Your task to perform on an android device: uninstall "Facebook Lite" Image 0: 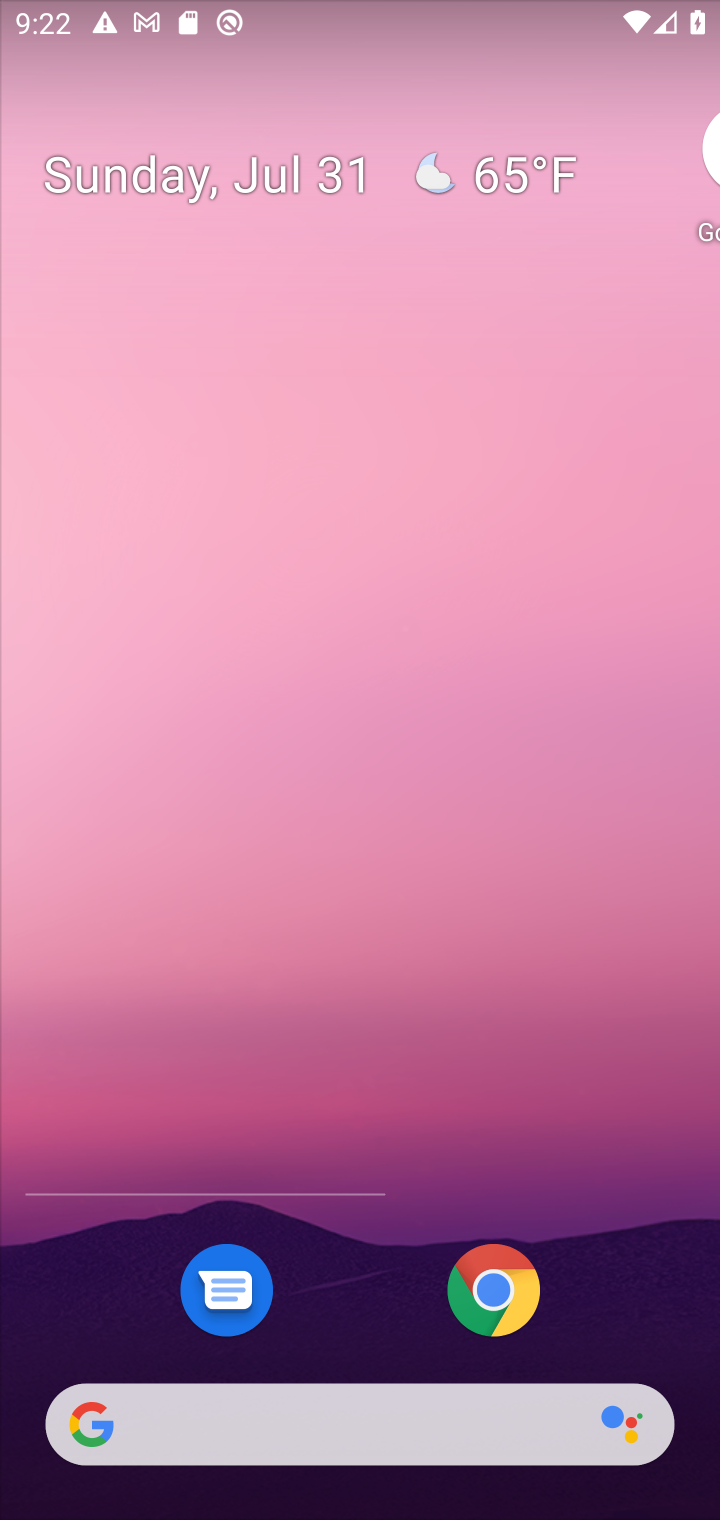
Step 0: press home button
Your task to perform on an android device: uninstall "Facebook Lite" Image 1: 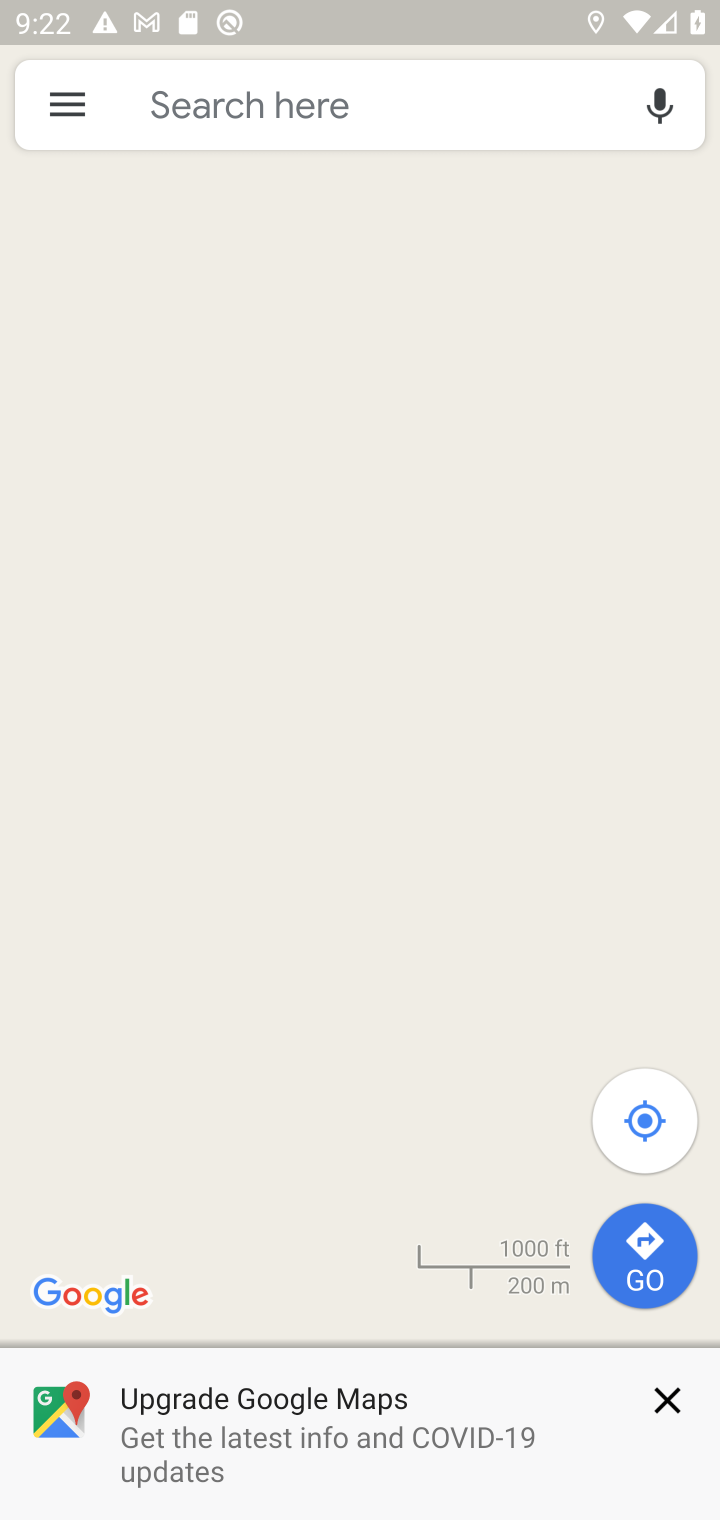
Step 1: click (602, 162)
Your task to perform on an android device: uninstall "Facebook Lite" Image 2: 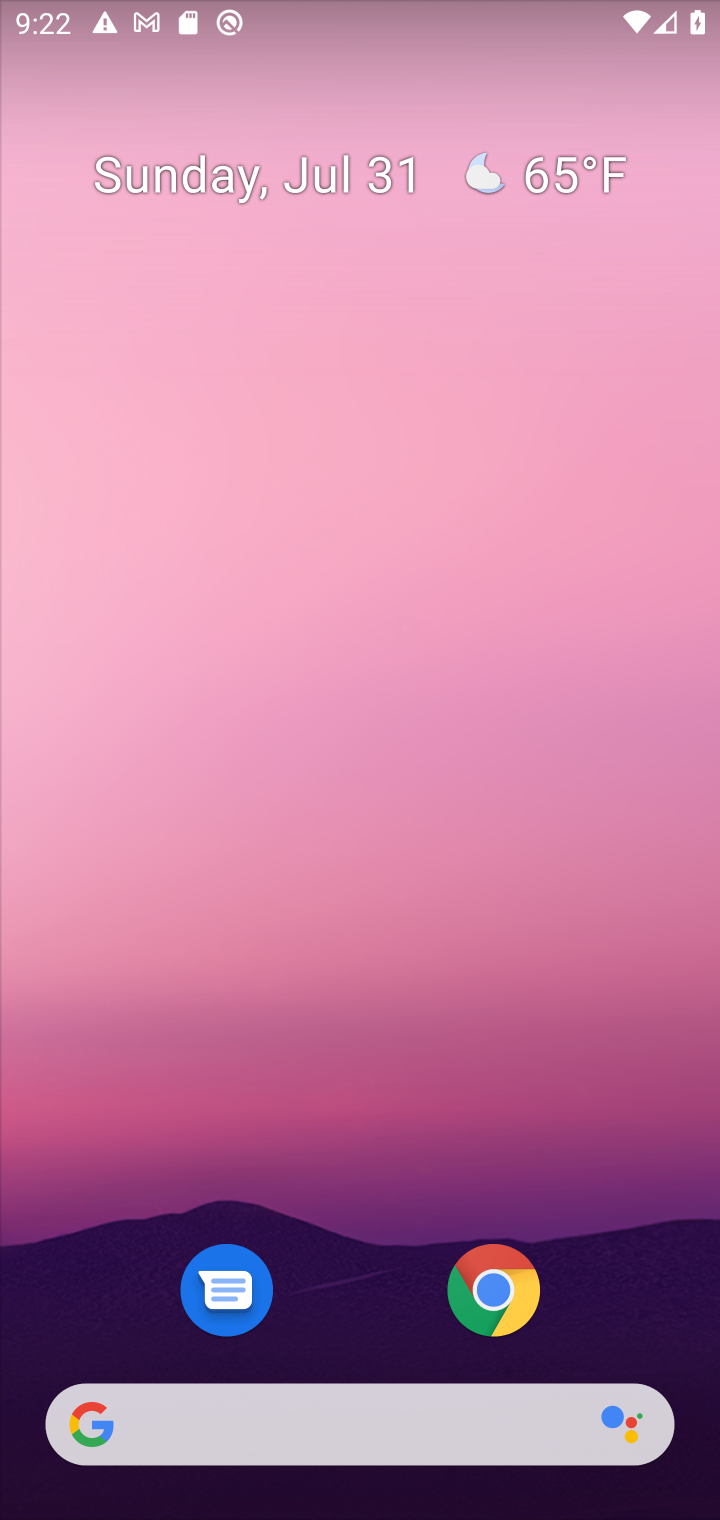
Step 2: drag from (592, 948) to (585, 117)
Your task to perform on an android device: uninstall "Facebook Lite" Image 3: 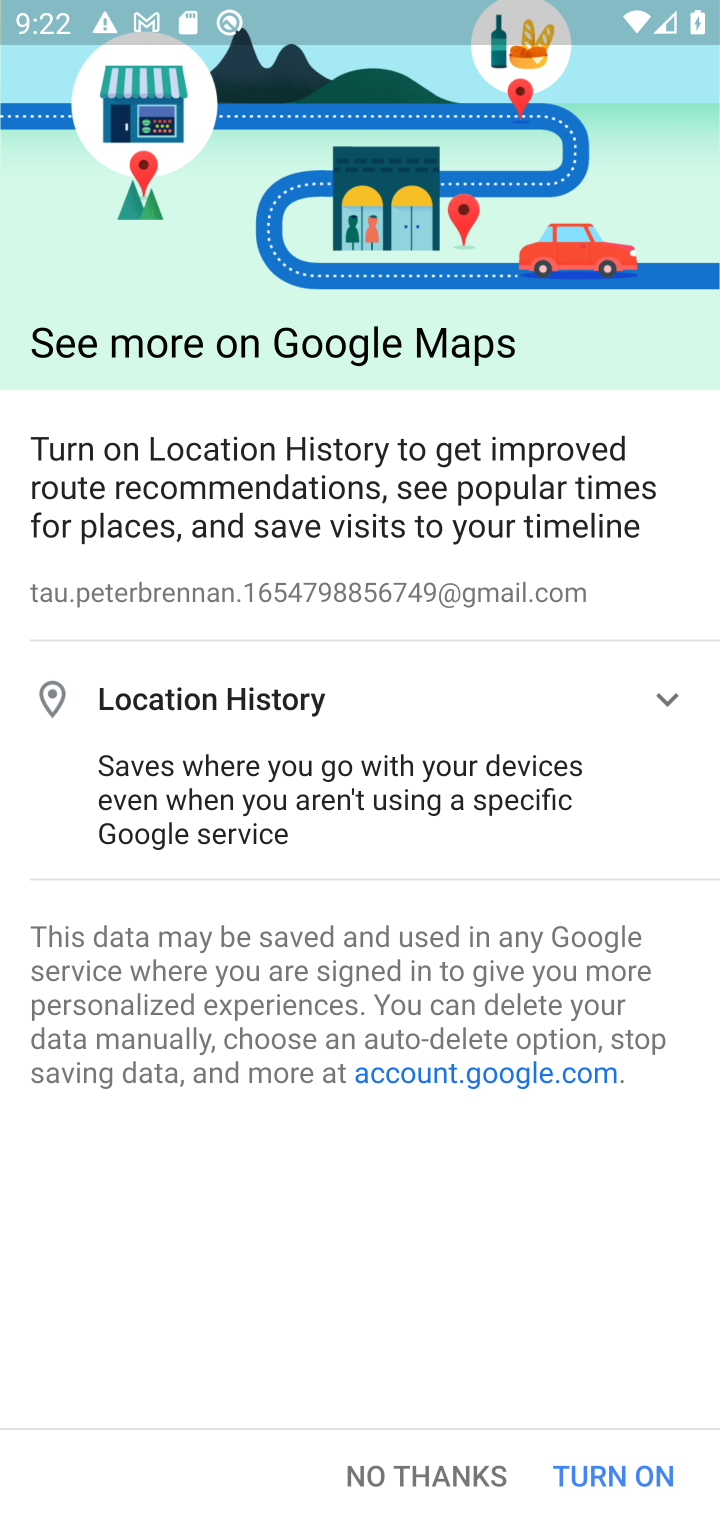
Step 3: press back button
Your task to perform on an android device: uninstall "Facebook Lite" Image 4: 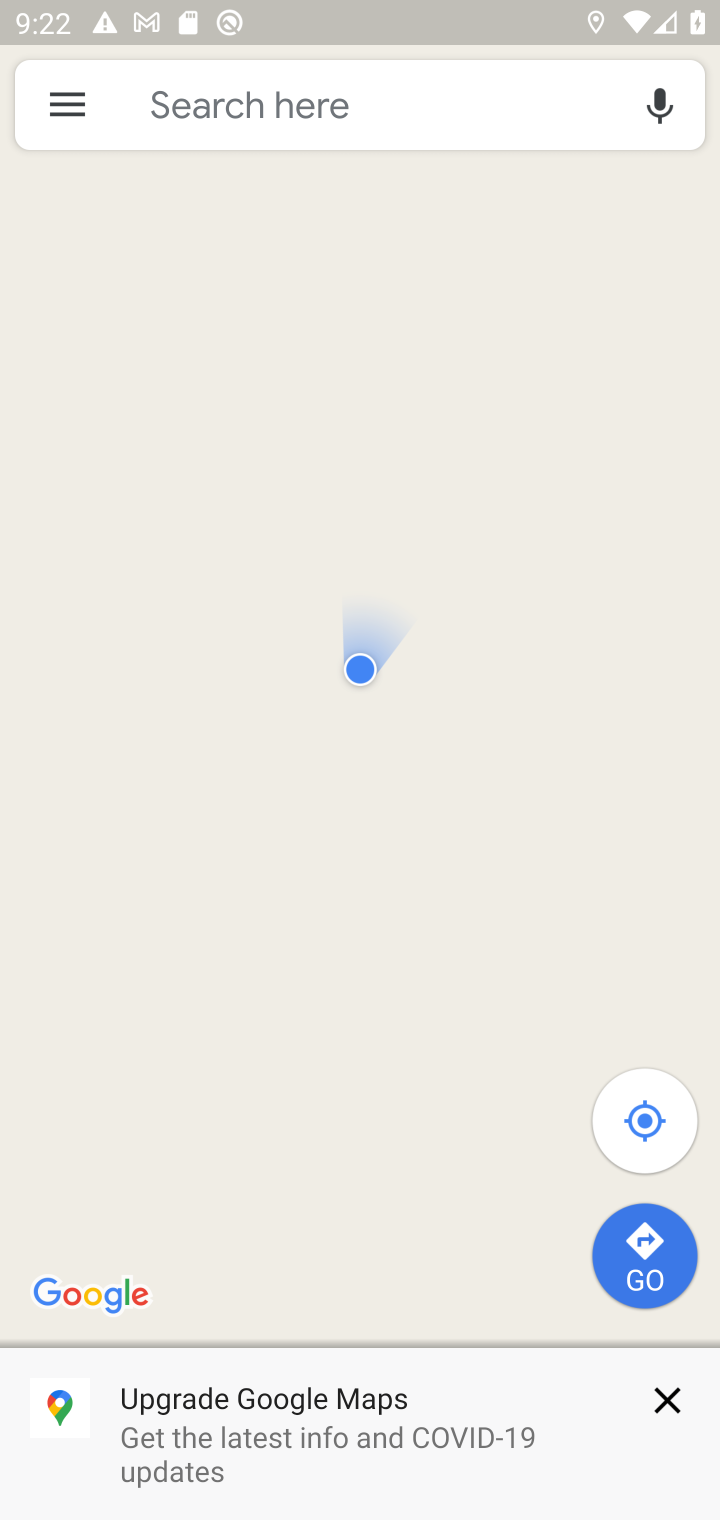
Step 4: press home button
Your task to perform on an android device: uninstall "Facebook Lite" Image 5: 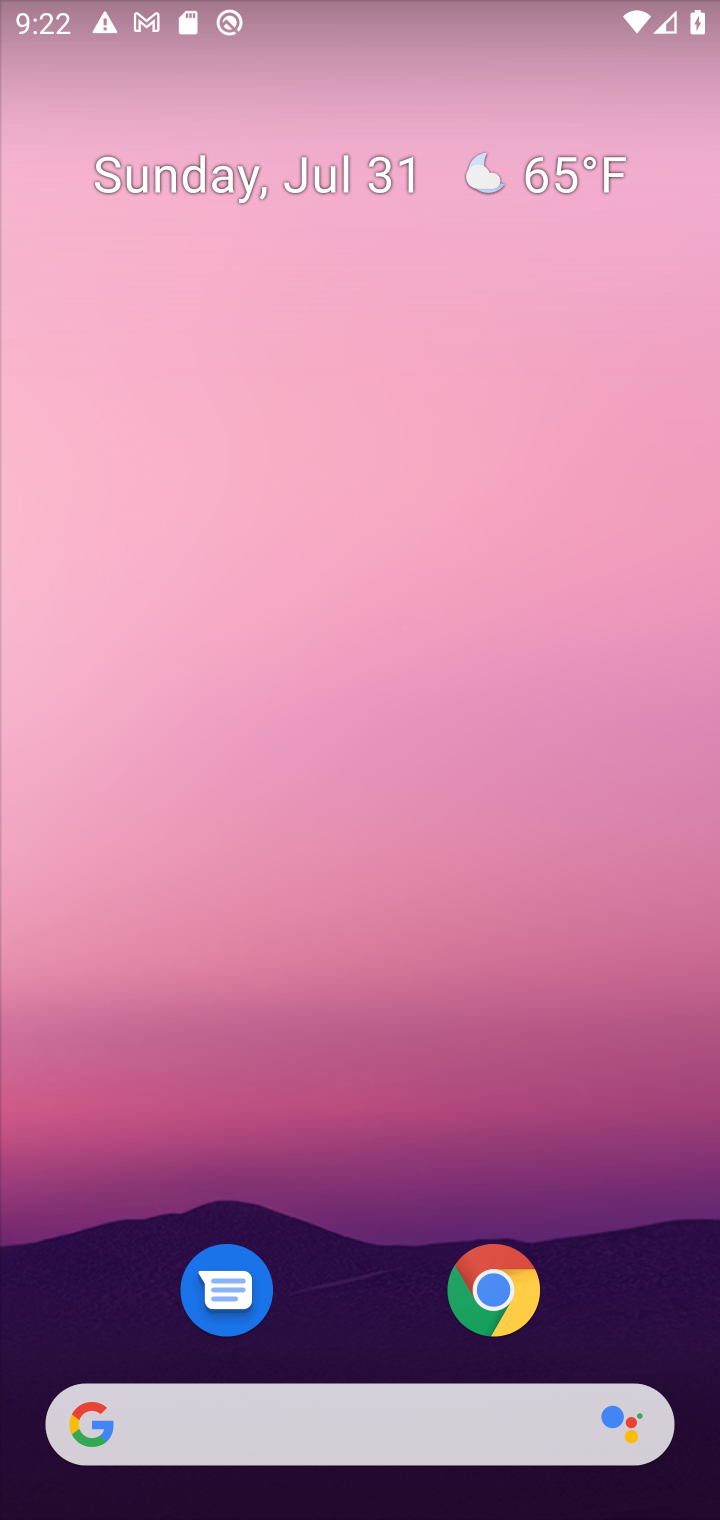
Step 5: drag from (601, 1130) to (543, 117)
Your task to perform on an android device: uninstall "Facebook Lite" Image 6: 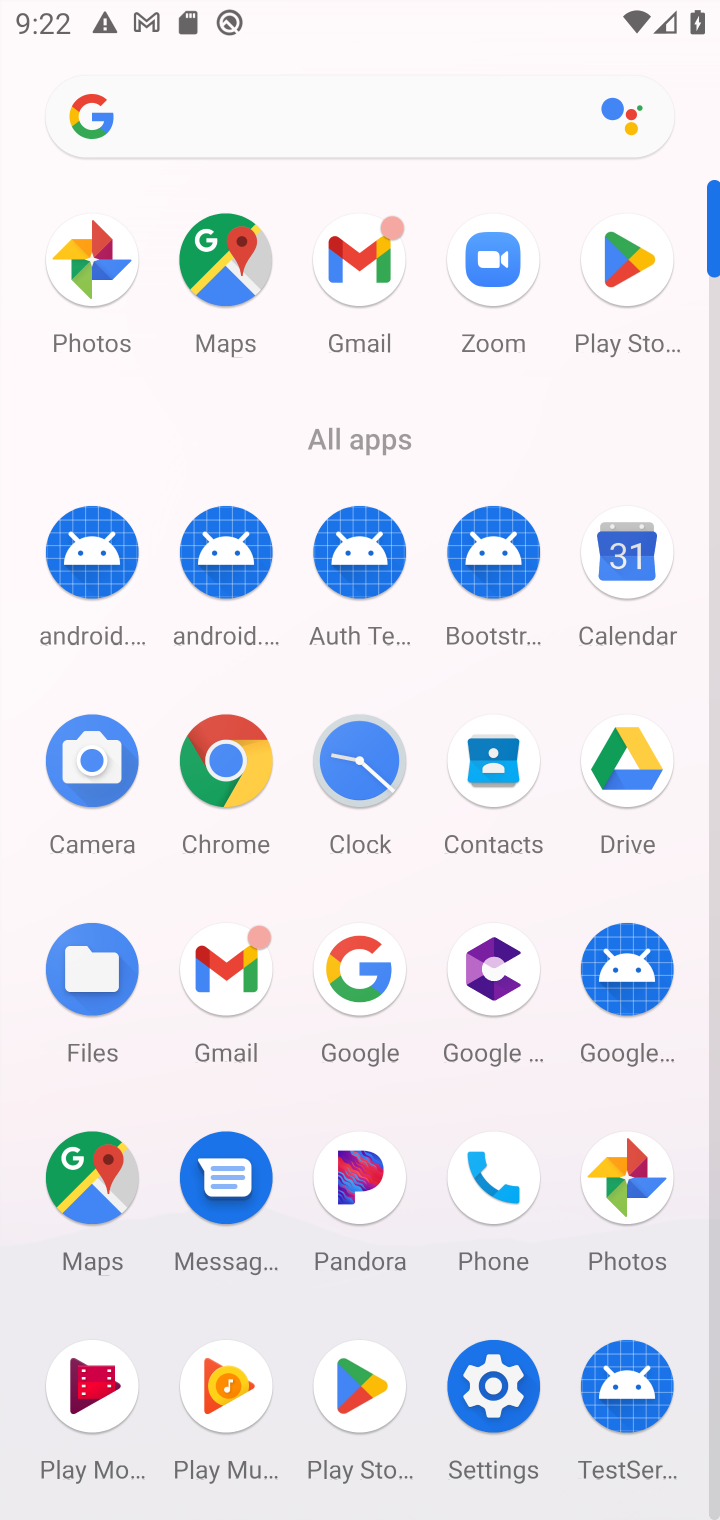
Step 6: click (642, 260)
Your task to perform on an android device: uninstall "Facebook Lite" Image 7: 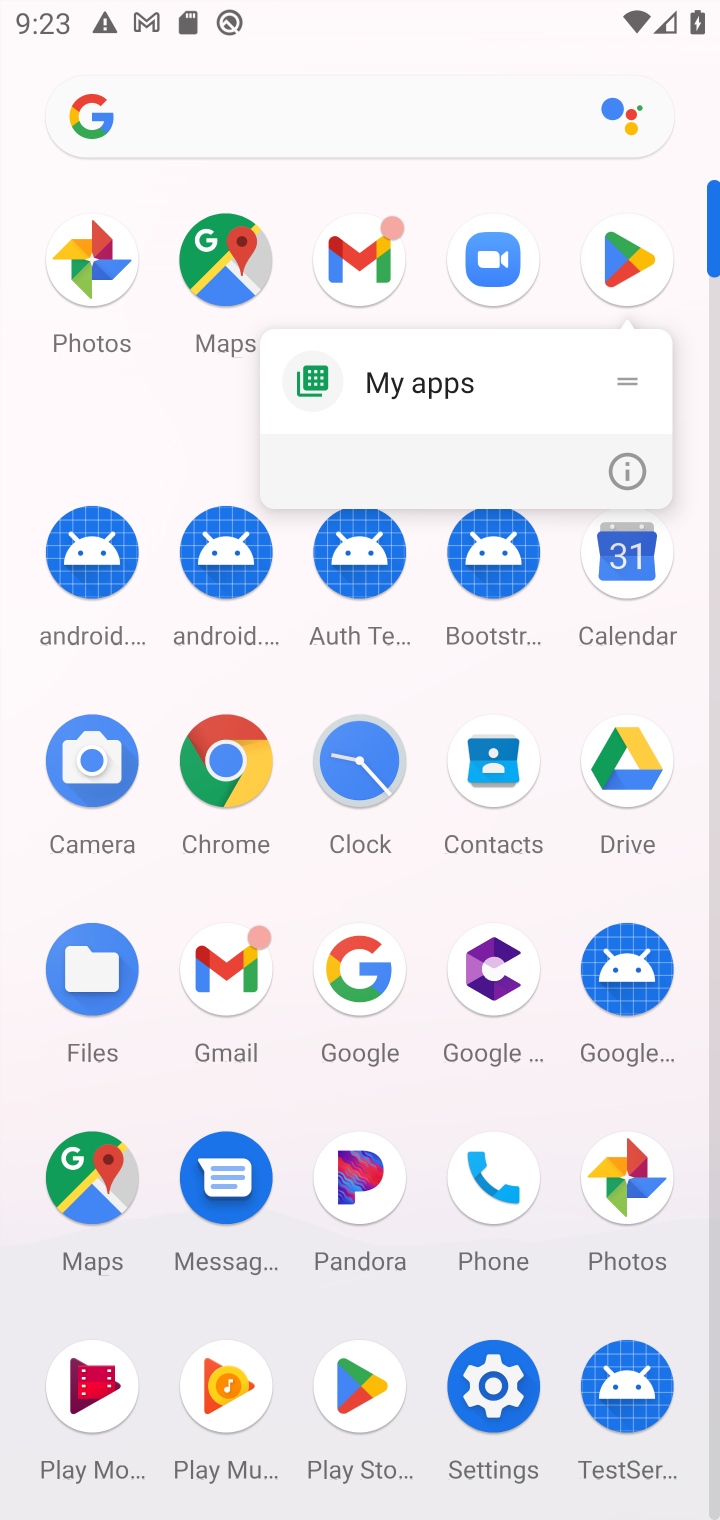
Step 7: click (631, 261)
Your task to perform on an android device: uninstall "Facebook Lite" Image 8: 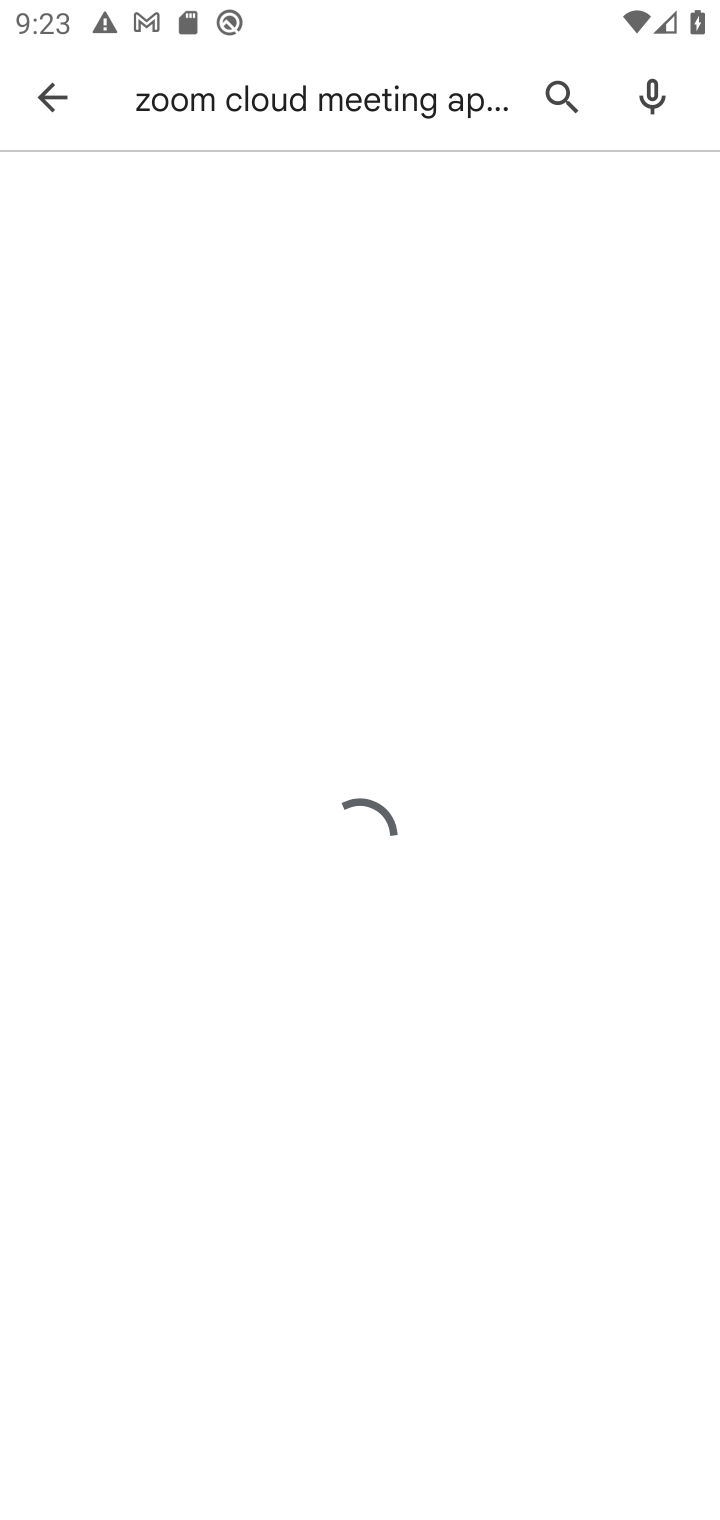
Step 8: click (564, 89)
Your task to perform on an android device: uninstall "Facebook Lite" Image 9: 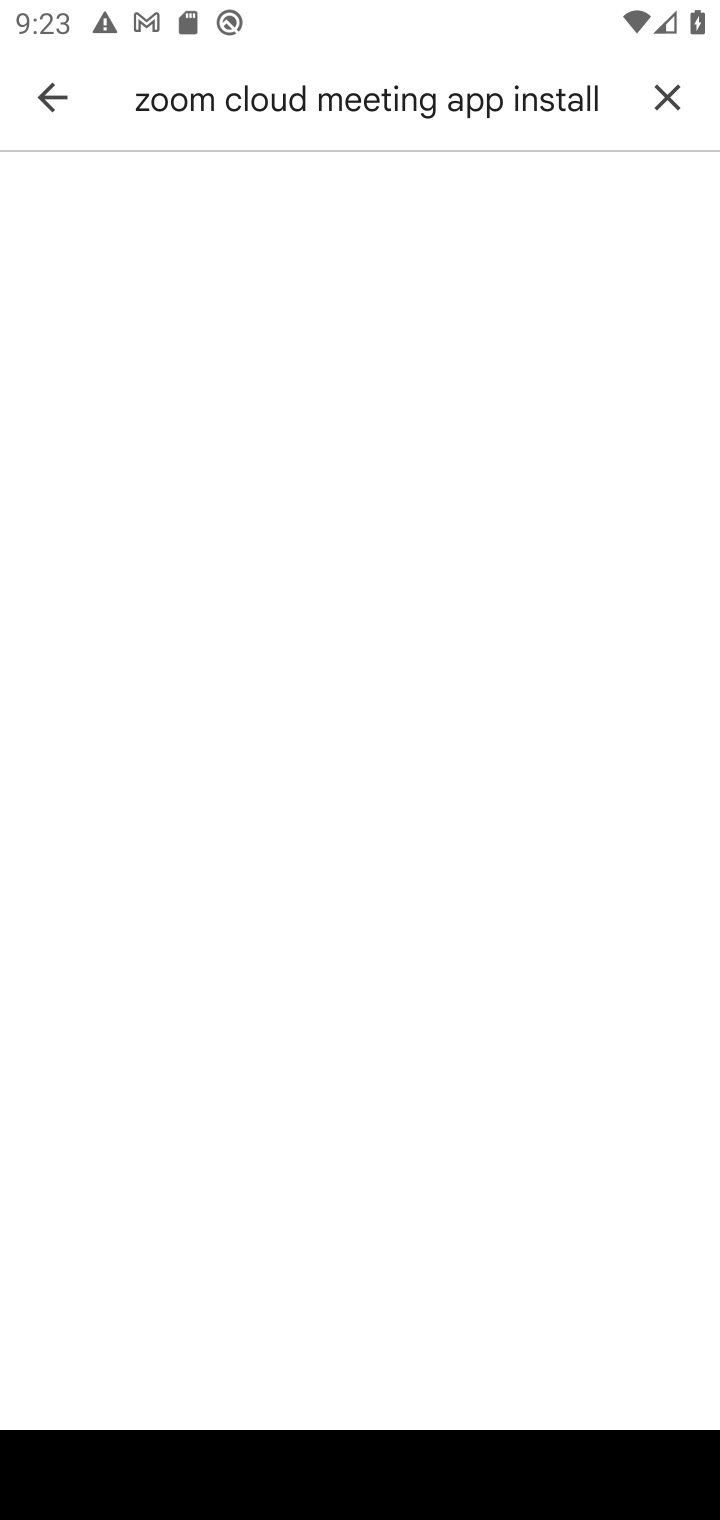
Step 9: click (666, 103)
Your task to perform on an android device: uninstall "Facebook Lite" Image 10: 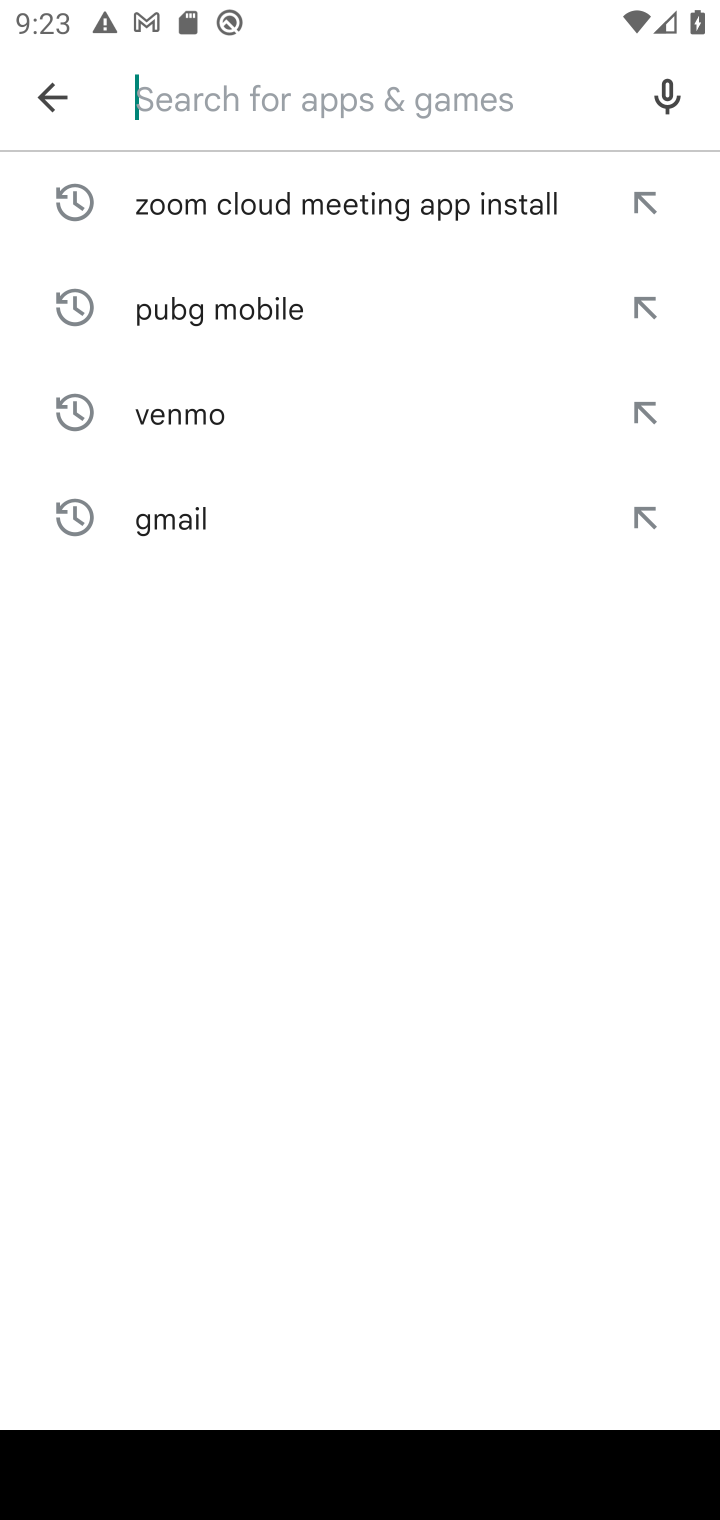
Step 10: type "facebook lite"
Your task to perform on an android device: uninstall "Facebook Lite" Image 11: 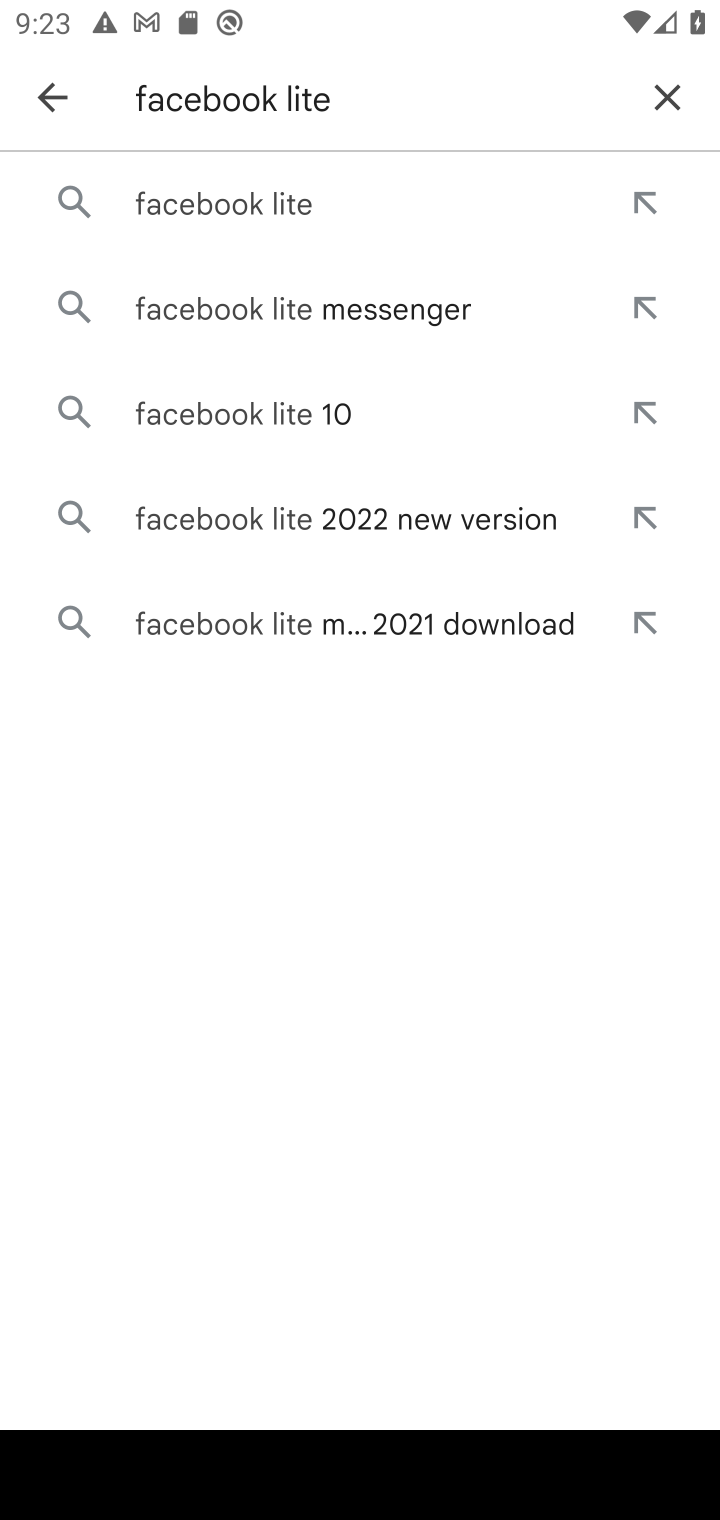
Step 11: click (366, 211)
Your task to perform on an android device: uninstall "Facebook Lite" Image 12: 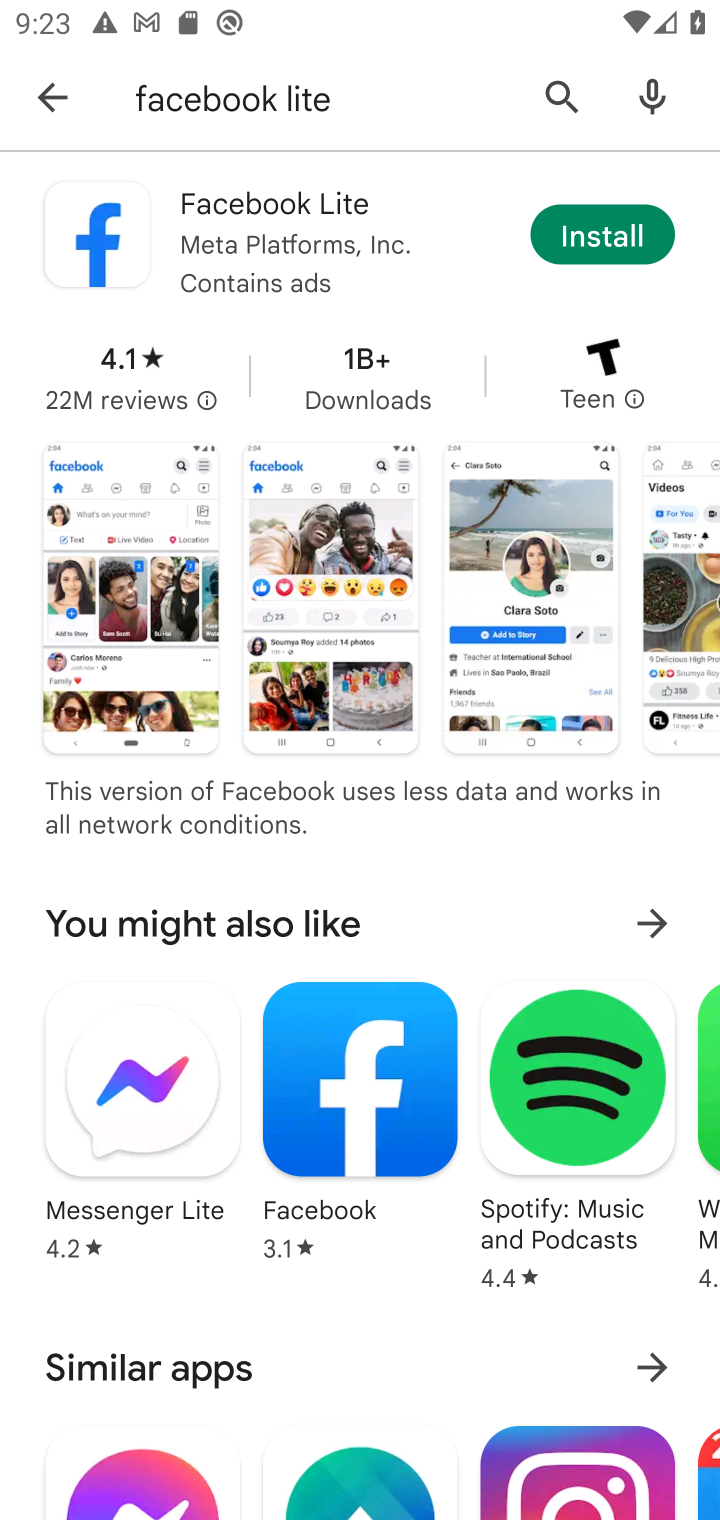
Step 12: task complete